Your task to perform on an android device: toggle notifications settings in the gmail app Image 0: 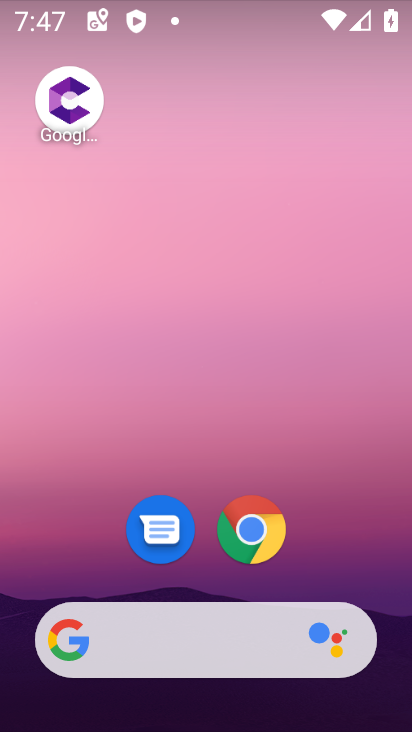
Step 0: drag from (244, 648) to (101, 349)
Your task to perform on an android device: toggle notifications settings in the gmail app Image 1: 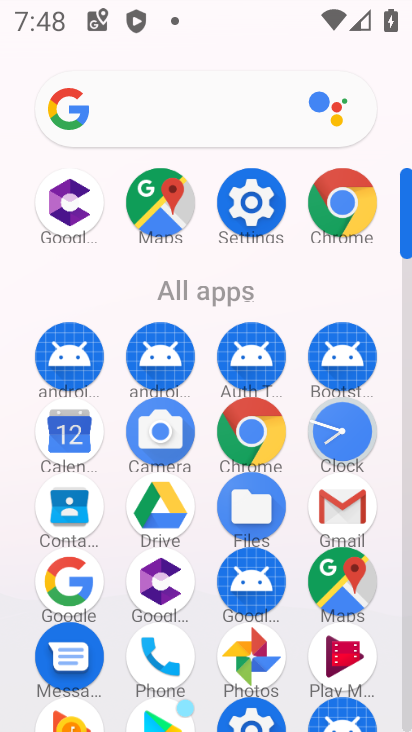
Step 1: click (333, 494)
Your task to perform on an android device: toggle notifications settings in the gmail app Image 2: 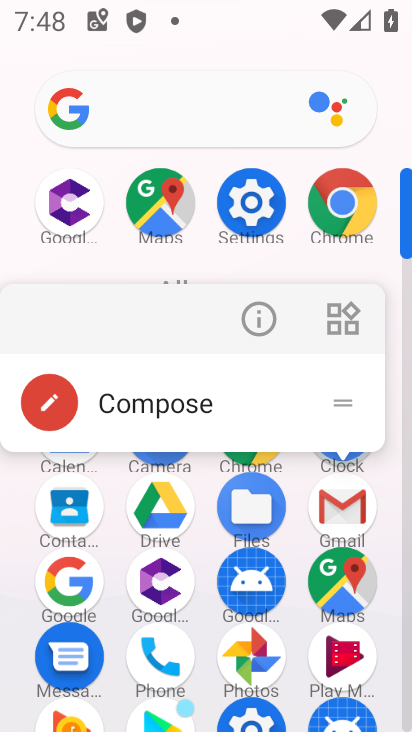
Step 2: click (258, 309)
Your task to perform on an android device: toggle notifications settings in the gmail app Image 3: 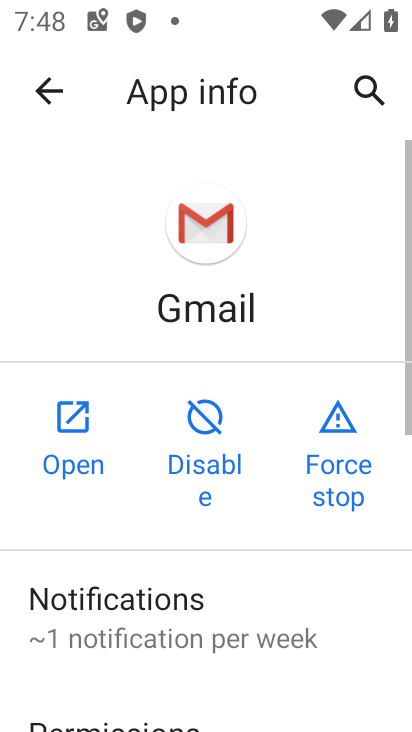
Step 3: click (139, 629)
Your task to perform on an android device: toggle notifications settings in the gmail app Image 4: 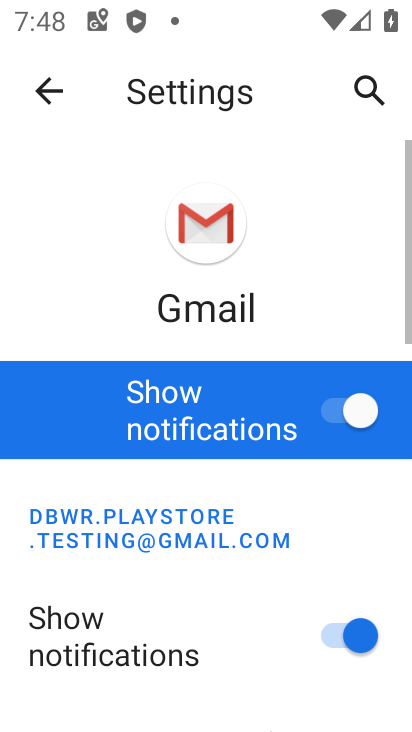
Step 4: click (351, 411)
Your task to perform on an android device: toggle notifications settings in the gmail app Image 5: 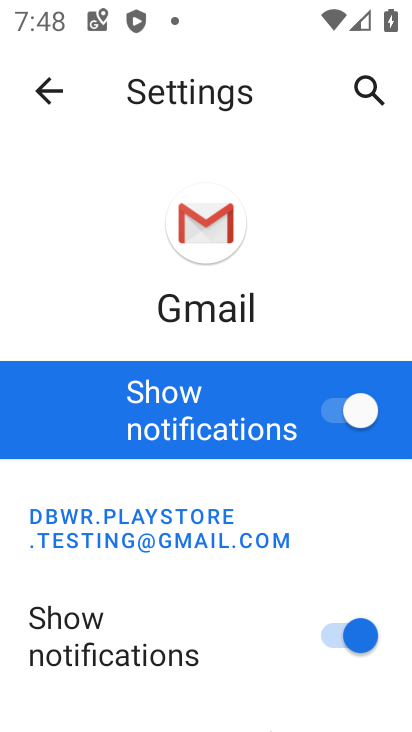
Step 5: click (358, 408)
Your task to perform on an android device: toggle notifications settings in the gmail app Image 6: 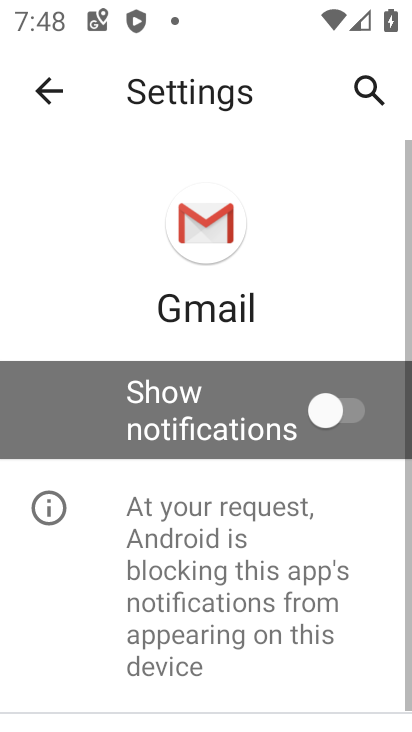
Step 6: task complete